Your task to perform on an android device: turn on javascript in the chrome app Image 0: 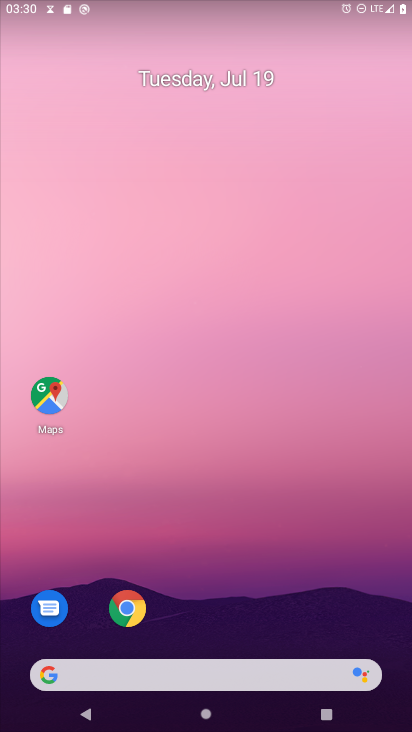
Step 0: drag from (268, 637) to (227, 37)
Your task to perform on an android device: turn on javascript in the chrome app Image 1: 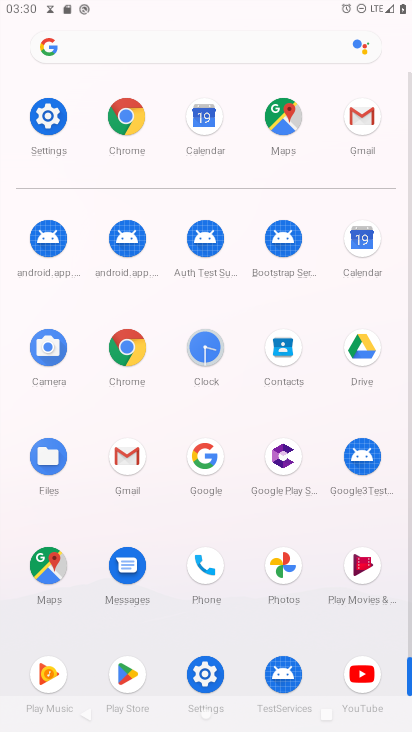
Step 1: click (135, 352)
Your task to perform on an android device: turn on javascript in the chrome app Image 2: 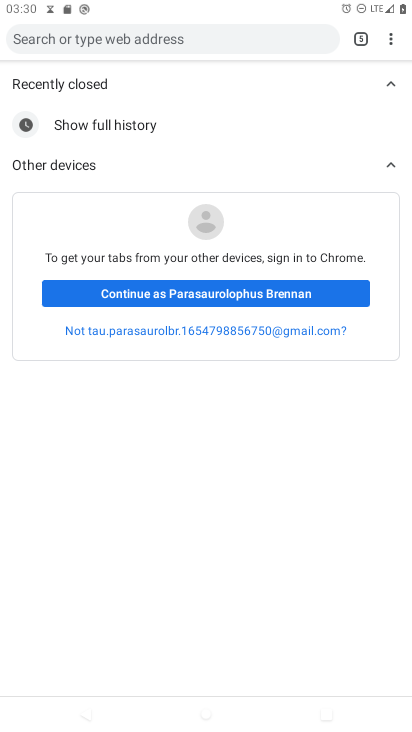
Step 2: drag from (392, 31) to (268, 327)
Your task to perform on an android device: turn on javascript in the chrome app Image 3: 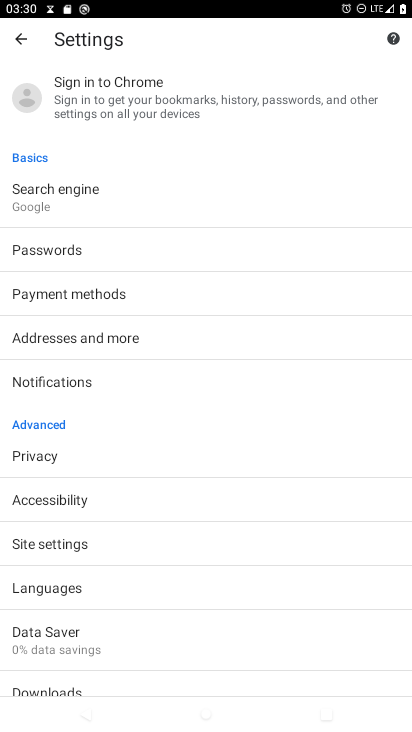
Step 3: click (75, 545)
Your task to perform on an android device: turn on javascript in the chrome app Image 4: 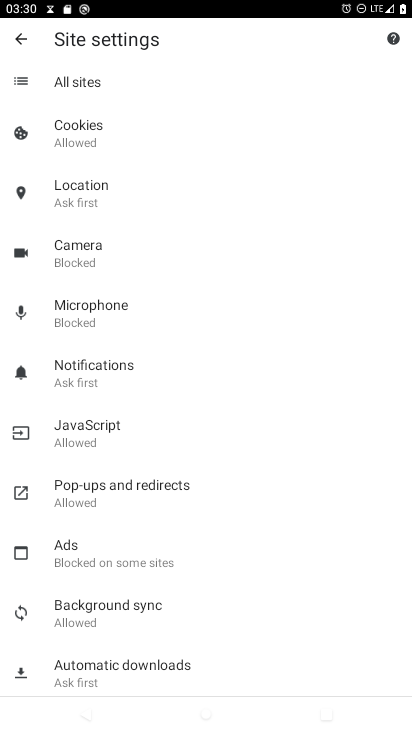
Step 4: click (102, 425)
Your task to perform on an android device: turn on javascript in the chrome app Image 5: 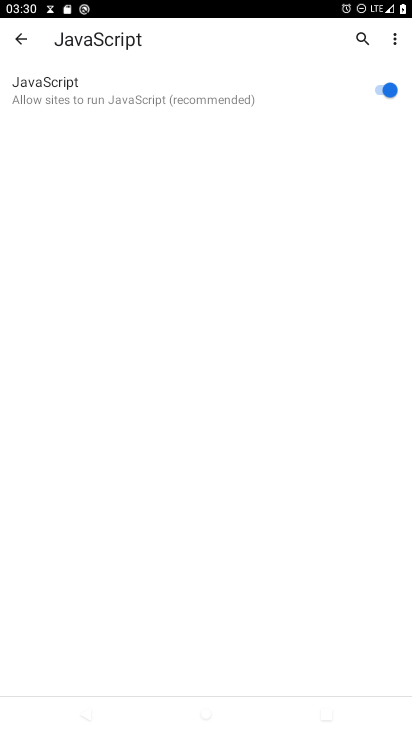
Step 5: task complete